Your task to perform on an android device: open app "Spotify: Music and Podcasts" (install if not already installed), go to login, and select forgot password Image 0: 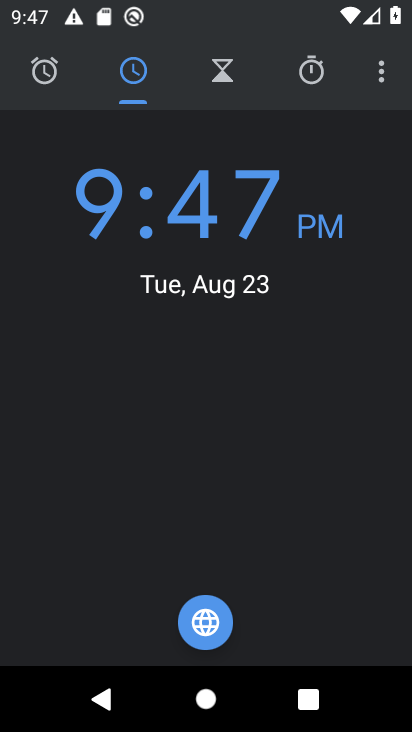
Step 0: press home button
Your task to perform on an android device: open app "Spotify: Music and Podcasts" (install if not already installed), go to login, and select forgot password Image 1: 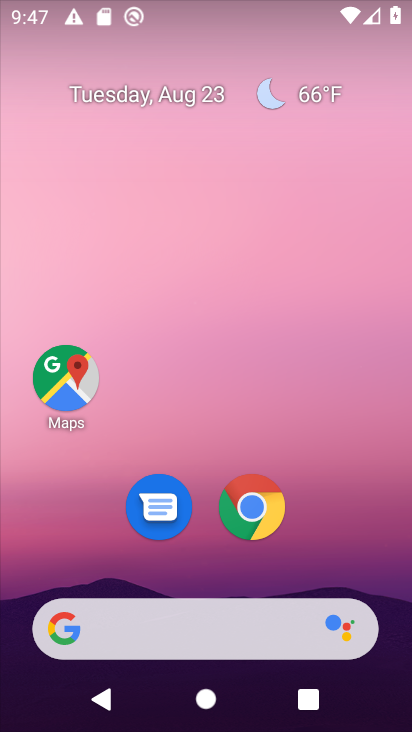
Step 1: drag from (396, 644) to (376, 147)
Your task to perform on an android device: open app "Spotify: Music and Podcasts" (install if not already installed), go to login, and select forgot password Image 2: 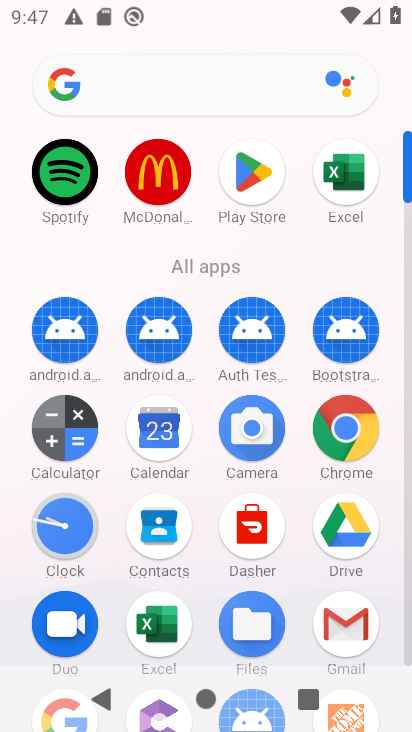
Step 2: click (64, 172)
Your task to perform on an android device: open app "Spotify: Music and Podcasts" (install if not already installed), go to login, and select forgot password Image 3: 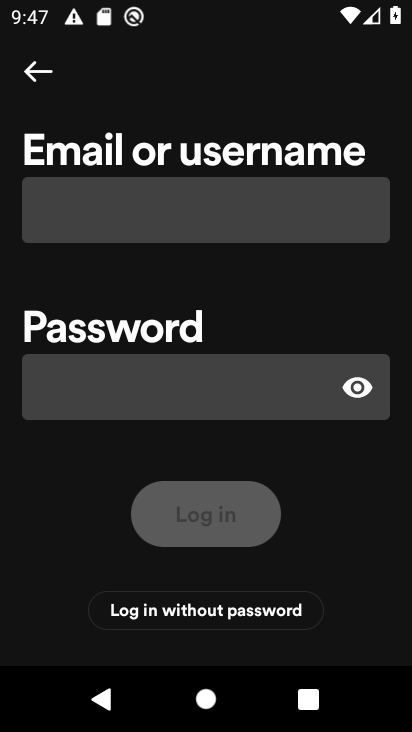
Step 3: task complete